Your task to perform on an android device: Toggle the flashlight Image 0: 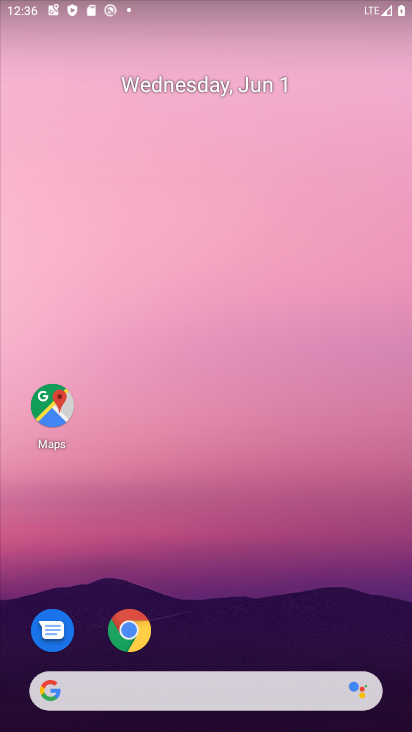
Step 0: drag from (273, 7) to (284, 564)
Your task to perform on an android device: Toggle the flashlight Image 1: 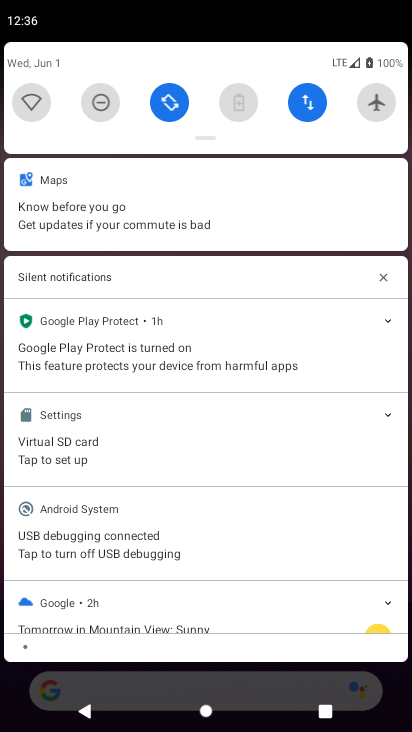
Step 1: task complete